Your task to perform on an android device: Open Google Chrome and click the shortcut for Amazon.com Image 0: 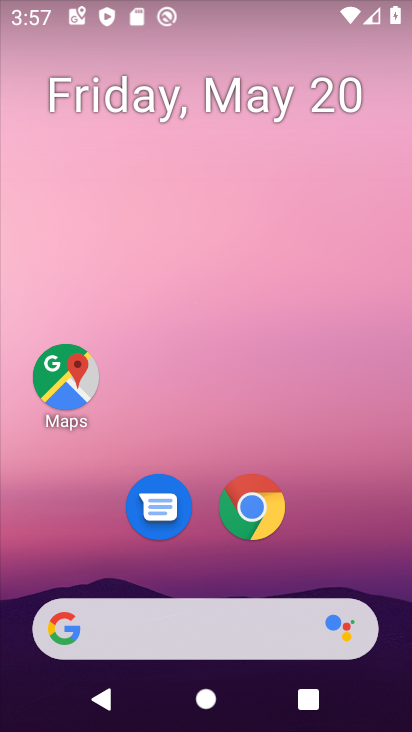
Step 0: click (252, 501)
Your task to perform on an android device: Open Google Chrome and click the shortcut for Amazon.com Image 1: 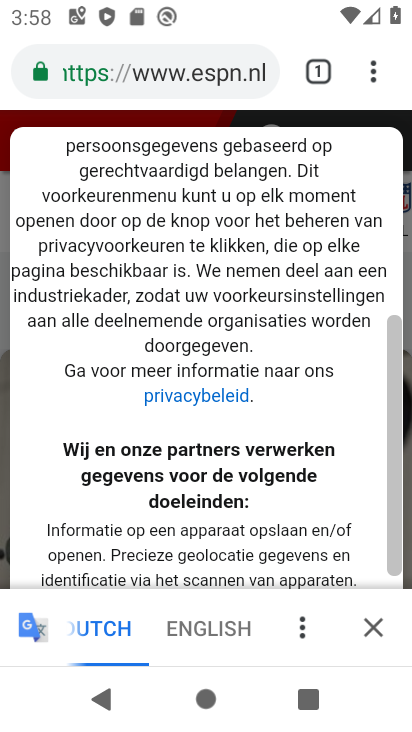
Step 1: click (214, 70)
Your task to perform on an android device: Open Google Chrome and click the shortcut for Amazon.com Image 2: 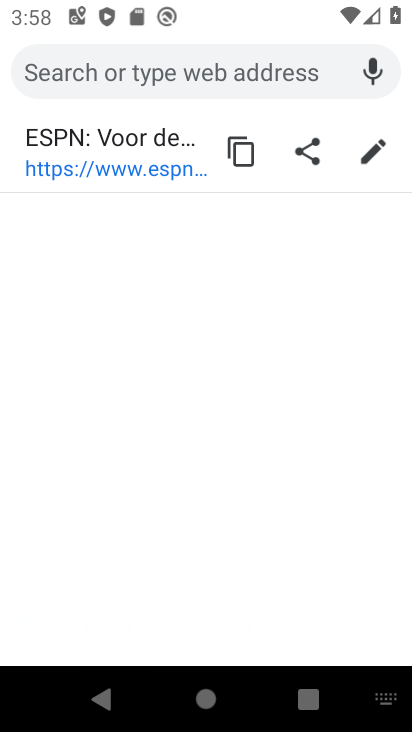
Step 2: type "Amazon.com"
Your task to perform on an android device: Open Google Chrome and click the shortcut for Amazon.com Image 3: 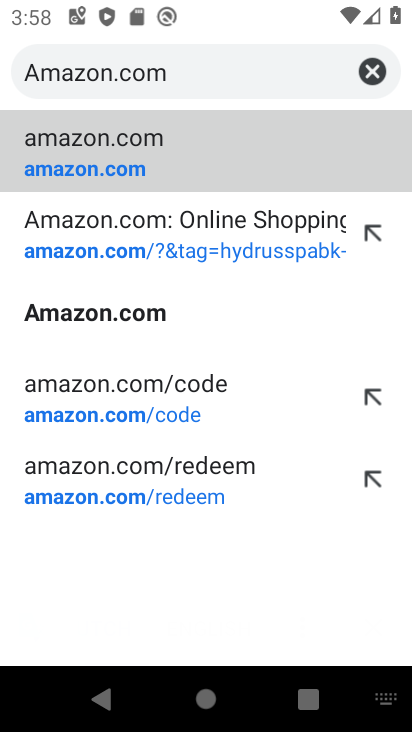
Step 3: click (77, 315)
Your task to perform on an android device: Open Google Chrome and click the shortcut for Amazon.com Image 4: 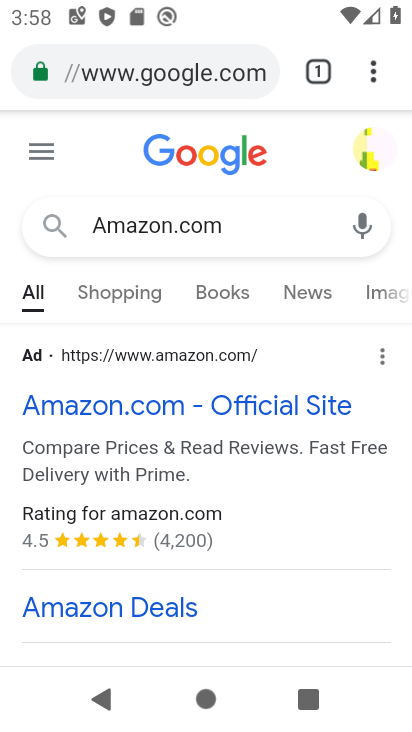
Step 4: click (109, 405)
Your task to perform on an android device: Open Google Chrome and click the shortcut for Amazon.com Image 5: 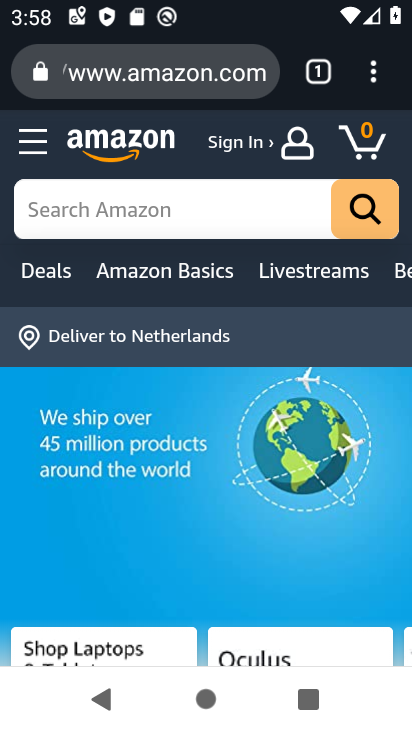
Step 5: click (376, 73)
Your task to perform on an android device: Open Google Chrome and click the shortcut for Amazon.com Image 6: 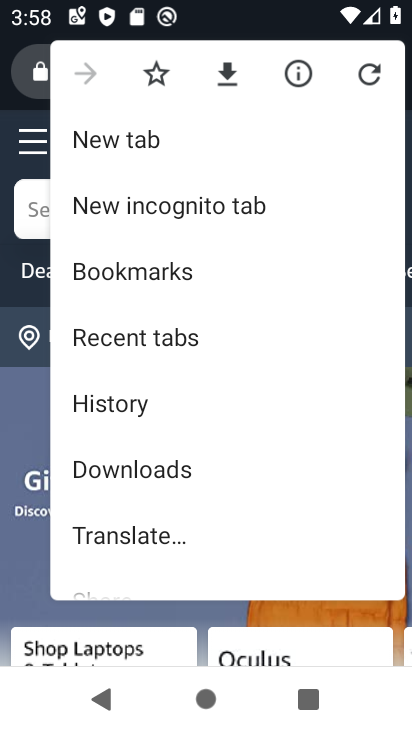
Step 6: drag from (202, 485) to (229, 388)
Your task to perform on an android device: Open Google Chrome and click the shortcut for Amazon.com Image 7: 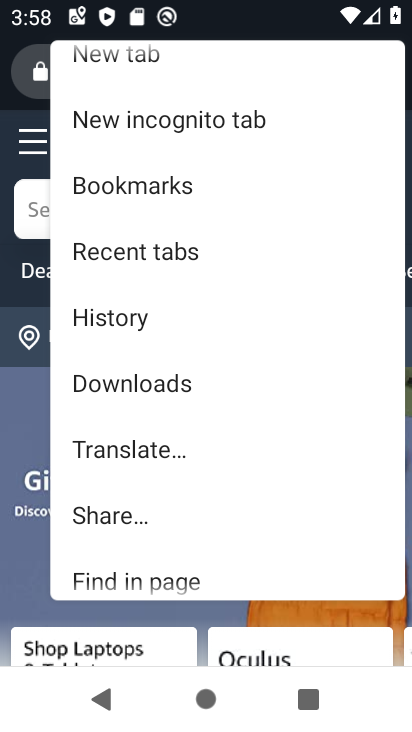
Step 7: drag from (183, 512) to (248, 405)
Your task to perform on an android device: Open Google Chrome and click the shortcut for Amazon.com Image 8: 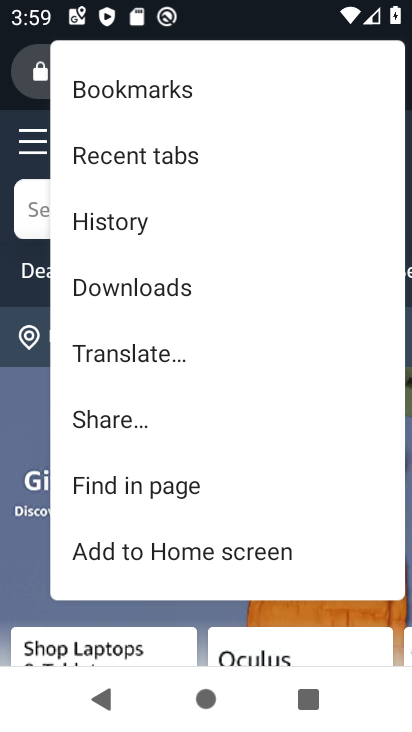
Step 8: drag from (200, 528) to (247, 425)
Your task to perform on an android device: Open Google Chrome and click the shortcut for Amazon.com Image 9: 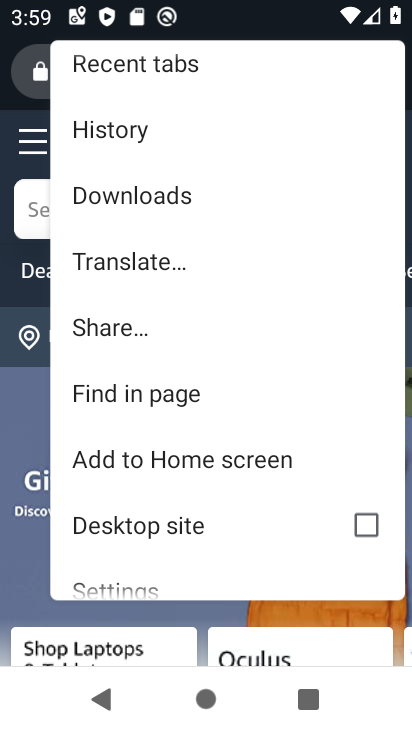
Step 9: drag from (213, 501) to (313, 389)
Your task to perform on an android device: Open Google Chrome and click the shortcut for Amazon.com Image 10: 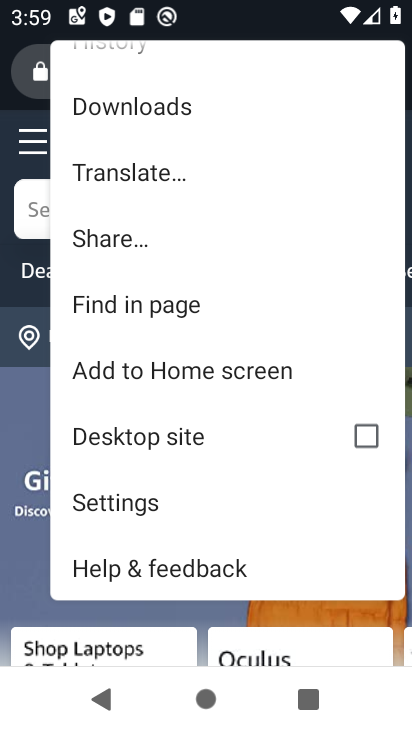
Step 10: click (200, 371)
Your task to perform on an android device: Open Google Chrome and click the shortcut for Amazon.com Image 11: 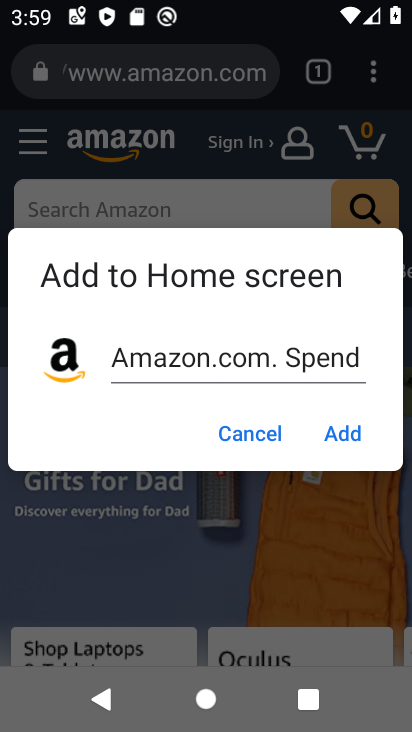
Step 11: click (361, 435)
Your task to perform on an android device: Open Google Chrome and click the shortcut for Amazon.com Image 12: 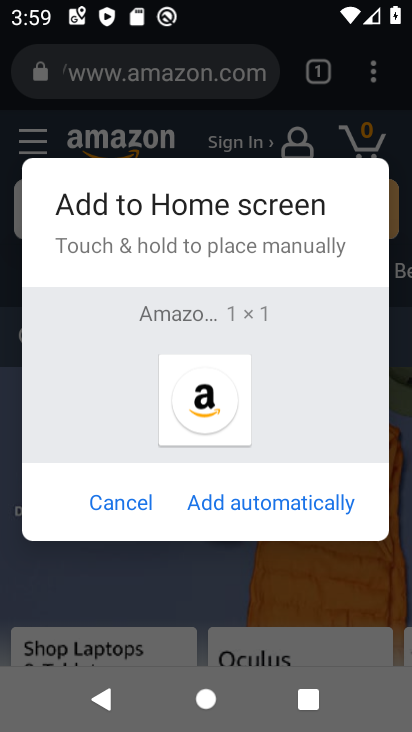
Step 12: click (279, 501)
Your task to perform on an android device: Open Google Chrome and click the shortcut for Amazon.com Image 13: 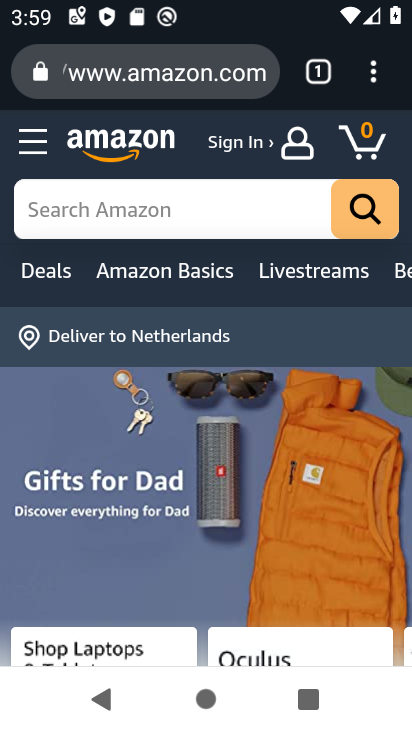
Step 13: task complete